Your task to perform on an android device: toggle improve location accuracy Image 0: 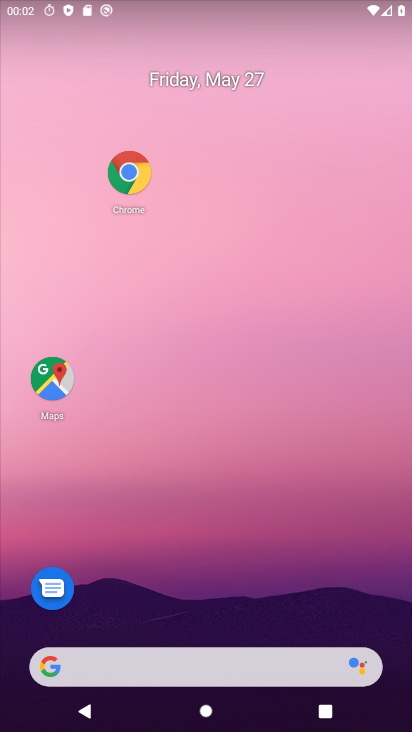
Step 0: drag from (219, 645) to (225, 284)
Your task to perform on an android device: toggle improve location accuracy Image 1: 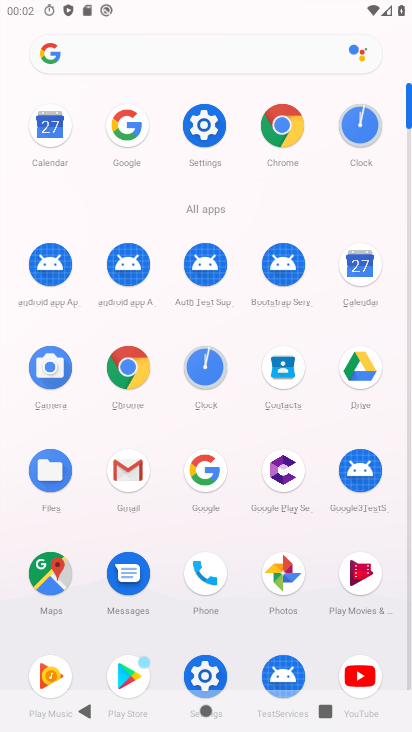
Step 1: click (203, 130)
Your task to perform on an android device: toggle improve location accuracy Image 2: 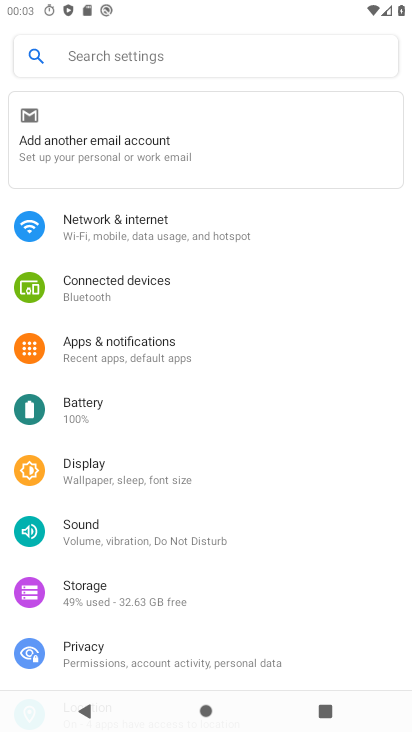
Step 2: drag from (104, 655) to (104, 327)
Your task to perform on an android device: toggle improve location accuracy Image 3: 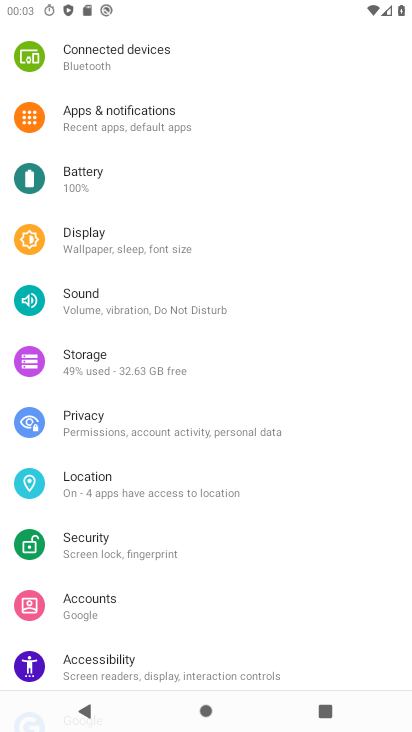
Step 3: click (91, 483)
Your task to perform on an android device: toggle improve location accuracy Image 4: 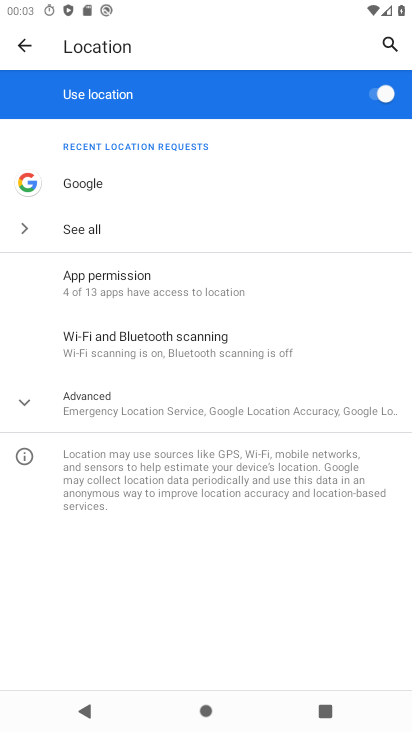
Step 4: click (90, 405)
Your task to perform on an android device: toggle improve location accuracy Image 5: 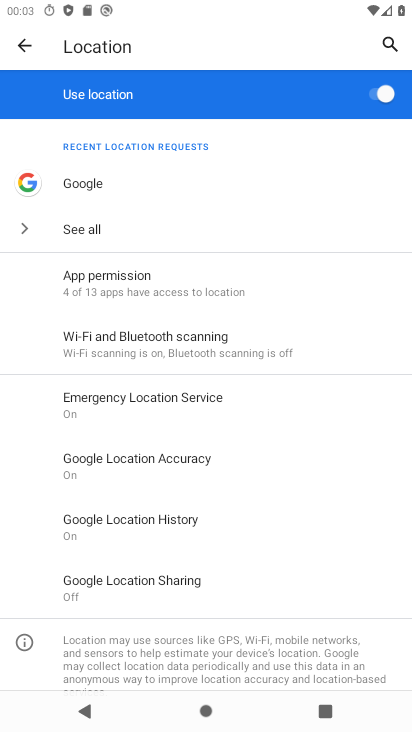
Step 5: click (126, 453)
Your task to perform on an android device: toggle improve location accuracy Image 6: 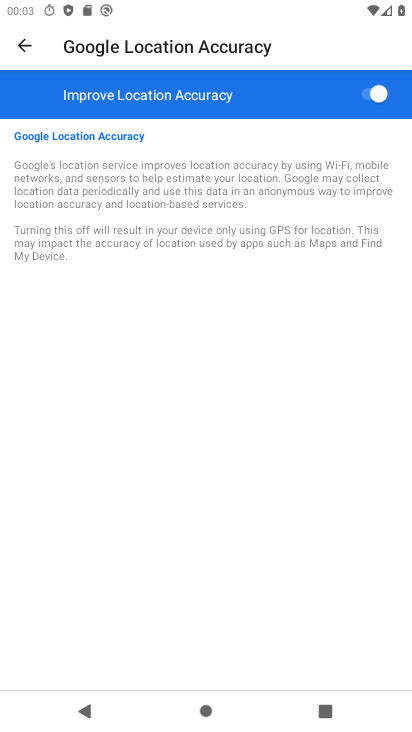
Step 6: click (367, 97)
Your task to perform on an android device: toggle improve location accuracy Image 7: 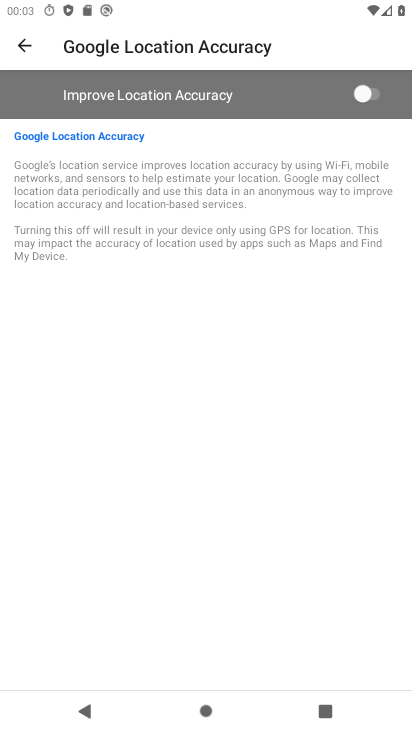
Step 7: task complete